Your task to perform on an android device: Go to accessibility settings Image 0: 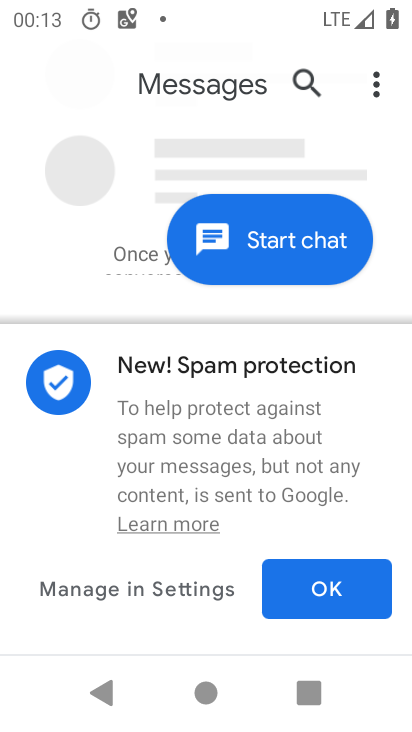
Step 0: press home button
Your task to perform on an android device: Go to accessibility settings Image 1: 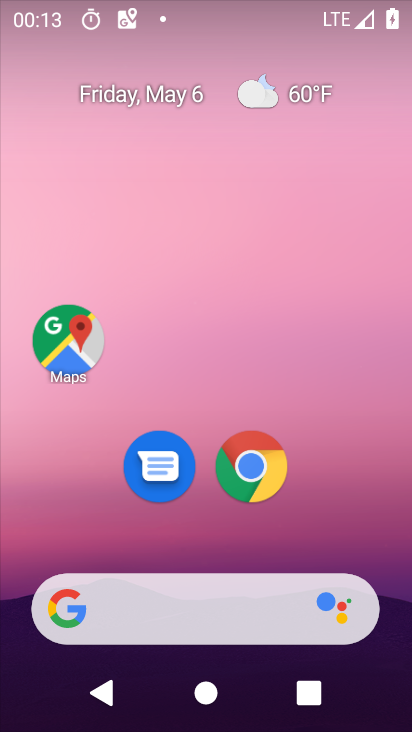
Step 1: drag from (191, 572) to (266, 157)
Your task to perform on an android device: Go to accessibility settings Image 2: 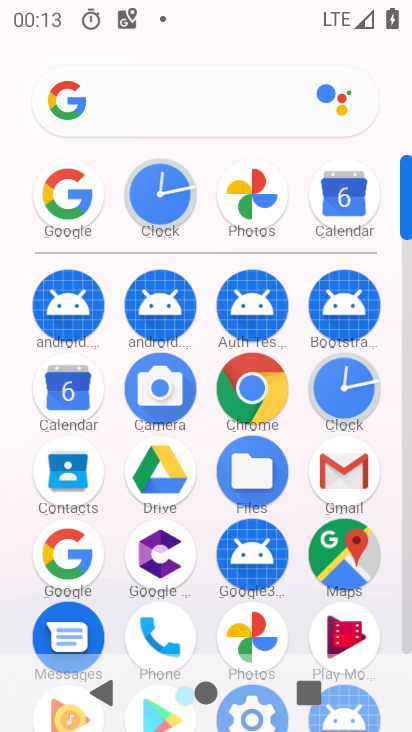
Step 2: drag from (217, 632) to (262, 298)
Your task to perform on an android device: Go to accessibility settings Image 3: 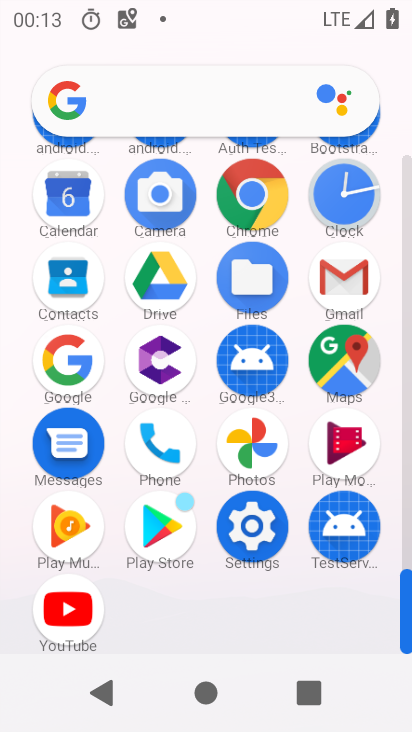
Step 3: click (252, 530)
Your task to perform on an android device: Go to accessibility settings Image 4: 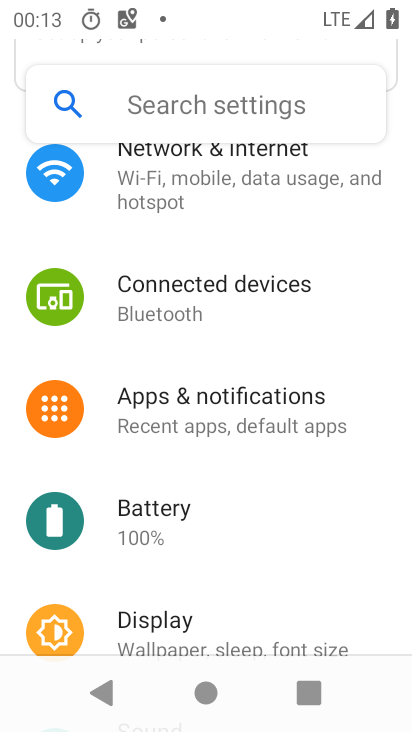
Step 4: drag from (216, 629) to (271, 237)
Your task to perform on an android device: Go to accessibility settings Image 5: 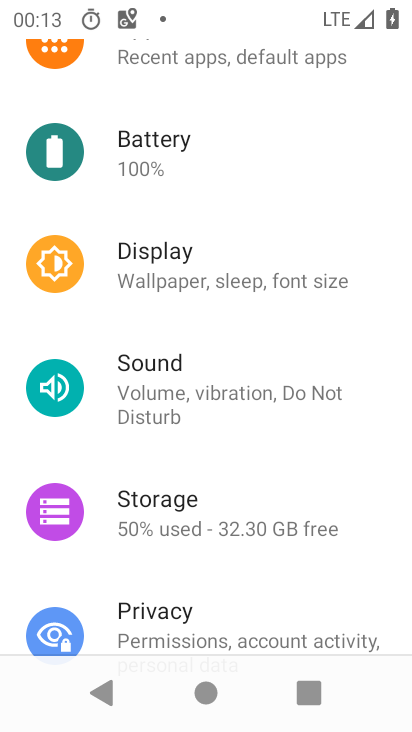
Step 5: drag from (224, 623) to (221, 322)
Your task to perform on an android device: Go to accessibility settings Image 6: 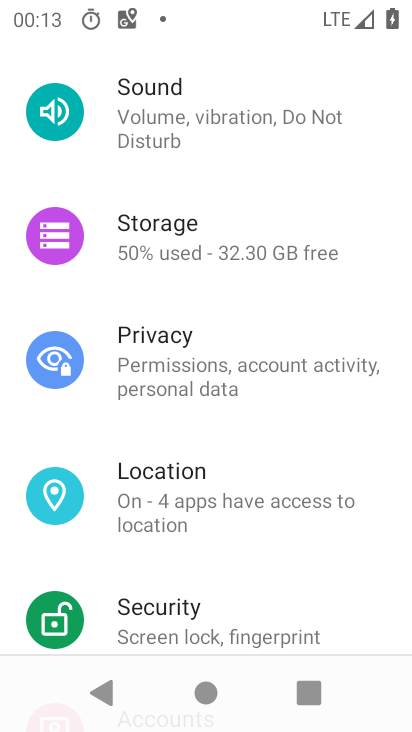
Step 6: drag from (177, 592) to (178, 361)
Your task to perform on an android device: Go to accessibility settings Image 7: 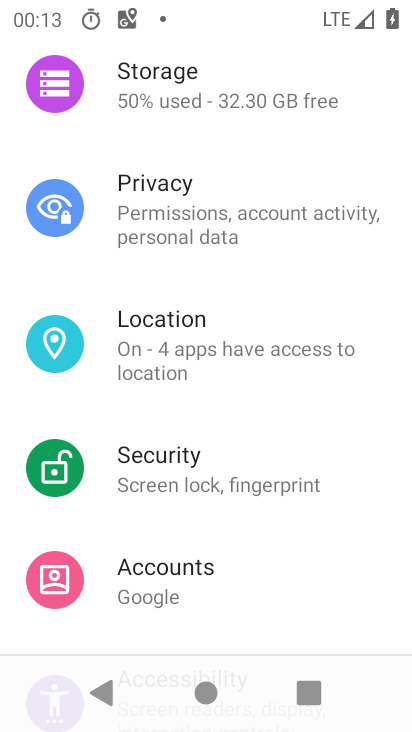
Step 7: drag from (186, 616) to (223, 296)
Your task to perform on an android device: Go to accessibility settings Image 8: 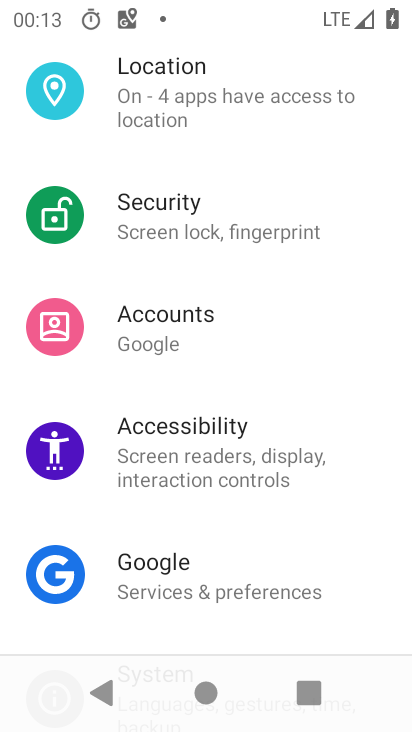
Step 8: click (176, 463)
Your task to perform on an android device: Go to accessibility settings Image 9: 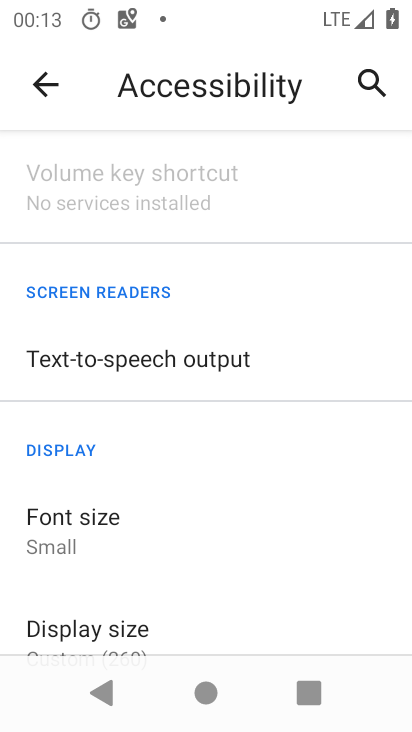
Step 9: task complete